Your task to perform on an android device: Show me popular games on the Play Store Image 0: 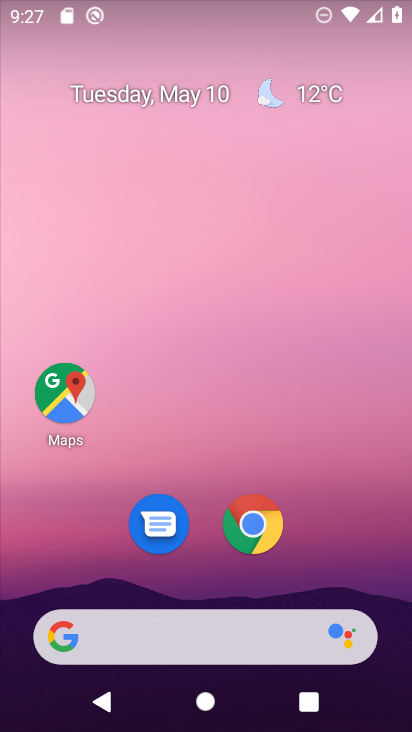
Step 0: drag from (329, 526) to (323, 40)
Your task to perform on an android device: Show me popular games on the Play Store Image 1: 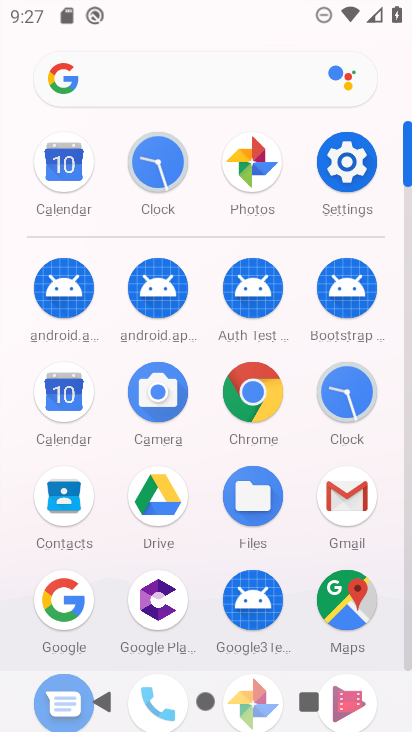
Step 1: drag from (200, 490) to (239, 162)
Your task to perform on an android device: Show me popular games on the Play Store Image 2: 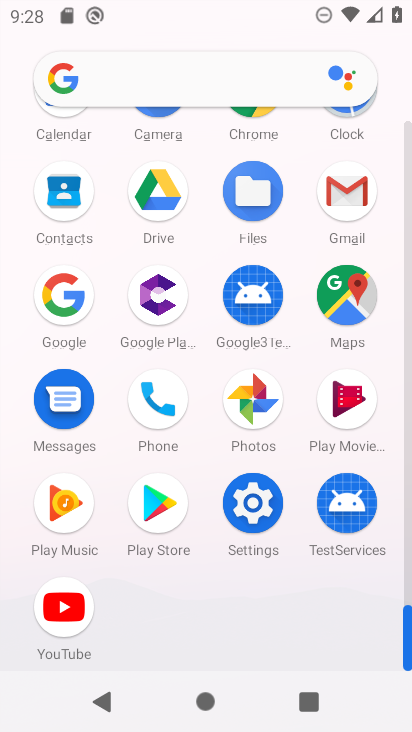
Step 2: click (156, 486)
Your task to perform on an android device: Show me popular games on the Play Store Image 3: 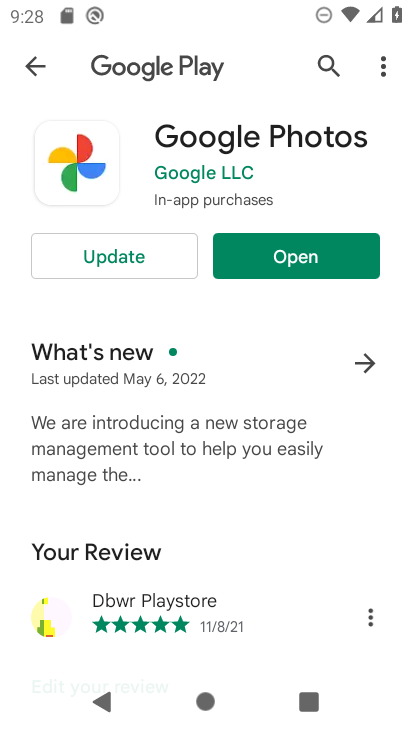
Step 3: click (39, 59)
Your task to perform on an android device: Show me popular games on the Play Store Image 4: 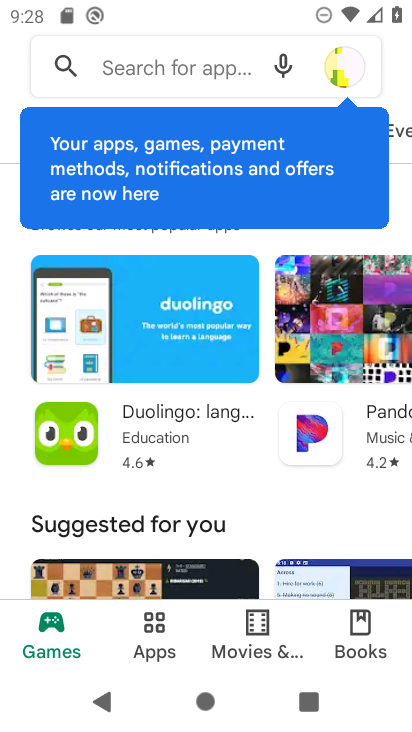
Step 4: drag from (209, 453) to (233, 68)
Your task to perform on an android device: Show me popular games on the Play Store Image 5: 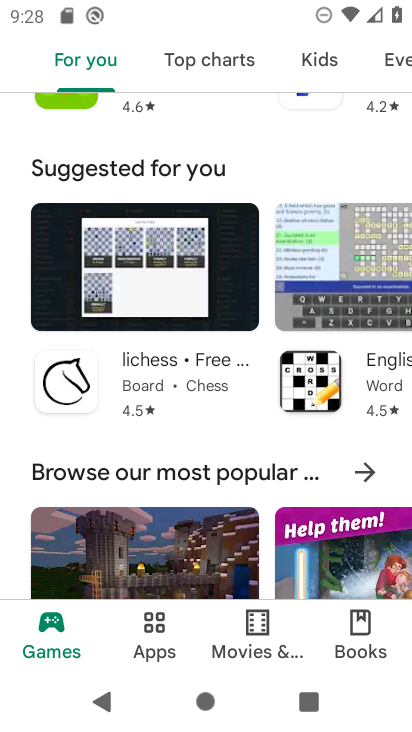
Step 5: click (365, 472)
Your task to perform on an android device: Show me popular games on the Play Store Image 6: 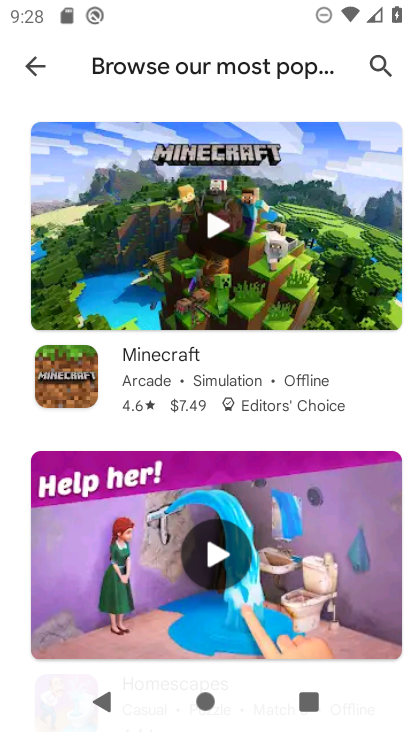
Step 6: task complete